Your task to perform on an android device: open chrome and create a bookmark for the current page Image 0: 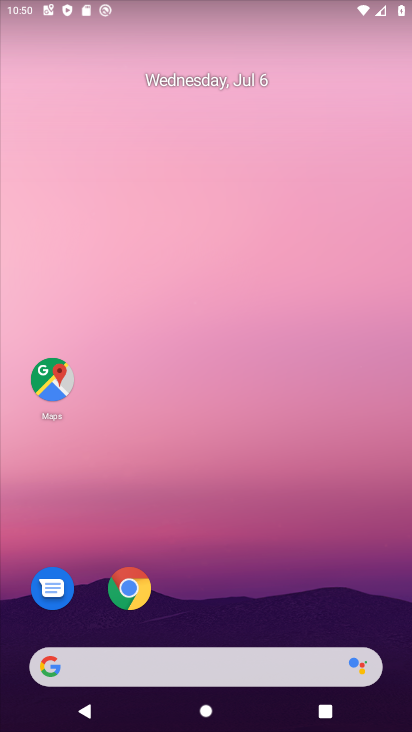
Step 0: click (223, 256)
Your task to perform on an android device: open chrome and create a bookmark for the current page Image 1: 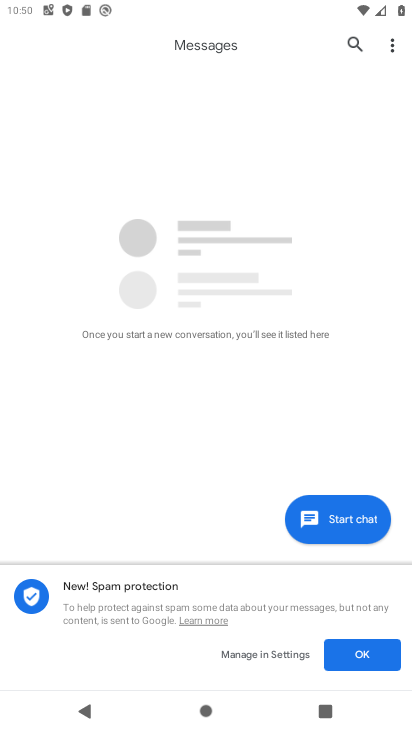
Step 1: press home button
Your task to perform on an android device: open chrome and create a bookmark for the current page Image 2: 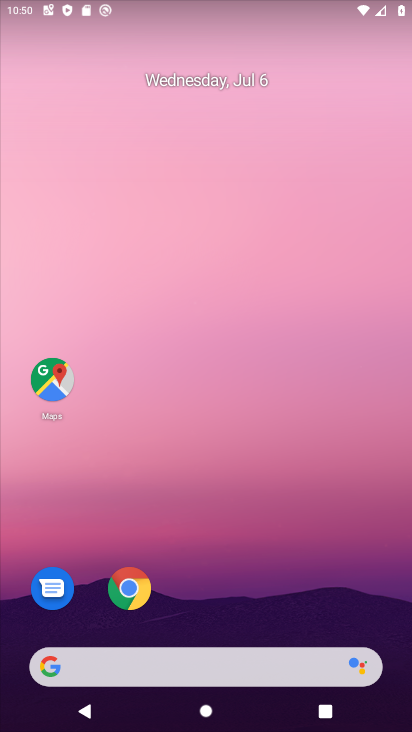
Step 2: drag from (272, 453) to (272, 219)
Your task to perform on an android device: open chrome and create a bookmark for the current page Image 3: 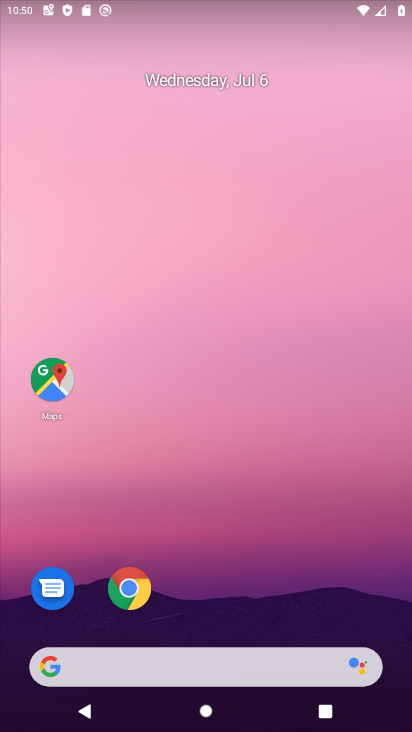
Step 3: drag from (199, 590) to (220, 240)
Your task to perform on an android device: open chrome and create a bookmark for the current page Image 4: 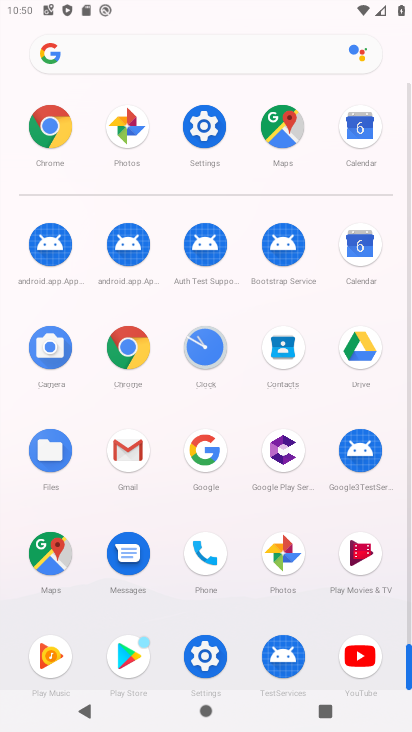
Step 4: click (121, 342)
Your task to perform on an android device: open chrome and create a bookmark for the current page Image 5: 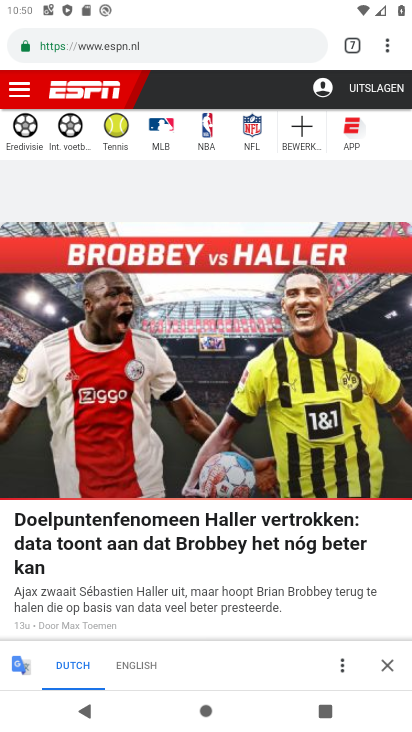
Step 5: click (386, 45)
Your task to perform on an android device: open chrome and create a bookmark for the current page Image 6: 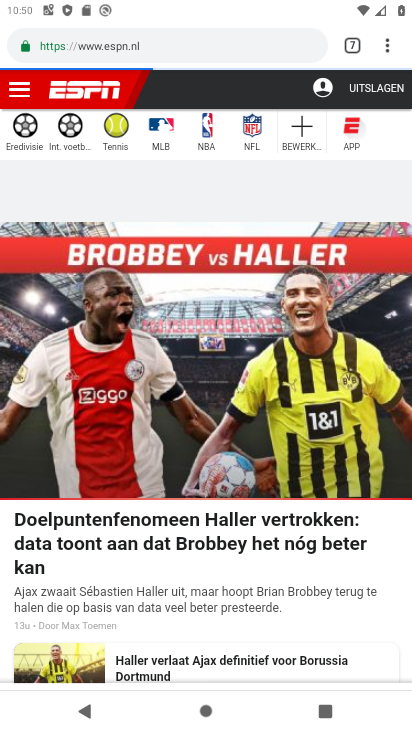
Step 6: click (386, 45)
Your task to perform on an android device: open chrome and create a bookmark for the current page Image 7: 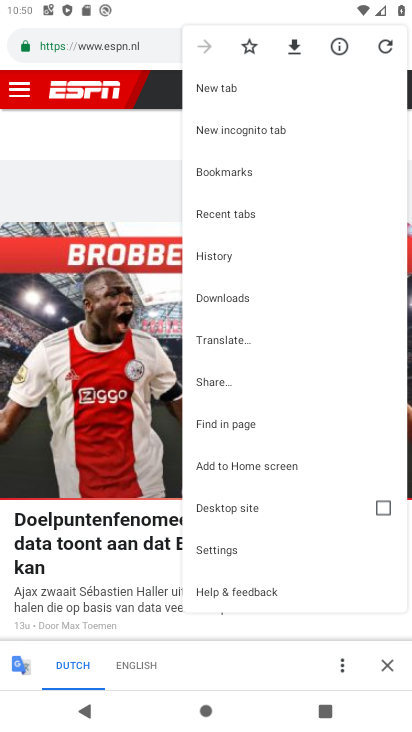
Step 7: click (248, 43)
Your task to perform on an android device: open chrome and create a bookmark for the current page Image 8: 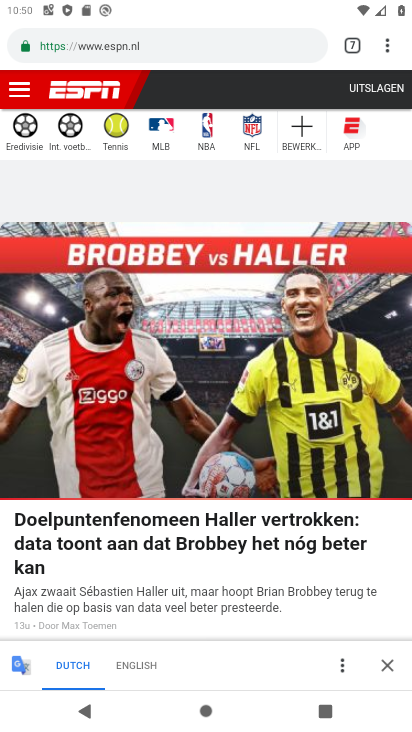
Step 8: task complete